Your task to perform on an android device: Search for the new Air Jordan 13 on Nike.com Image 0: 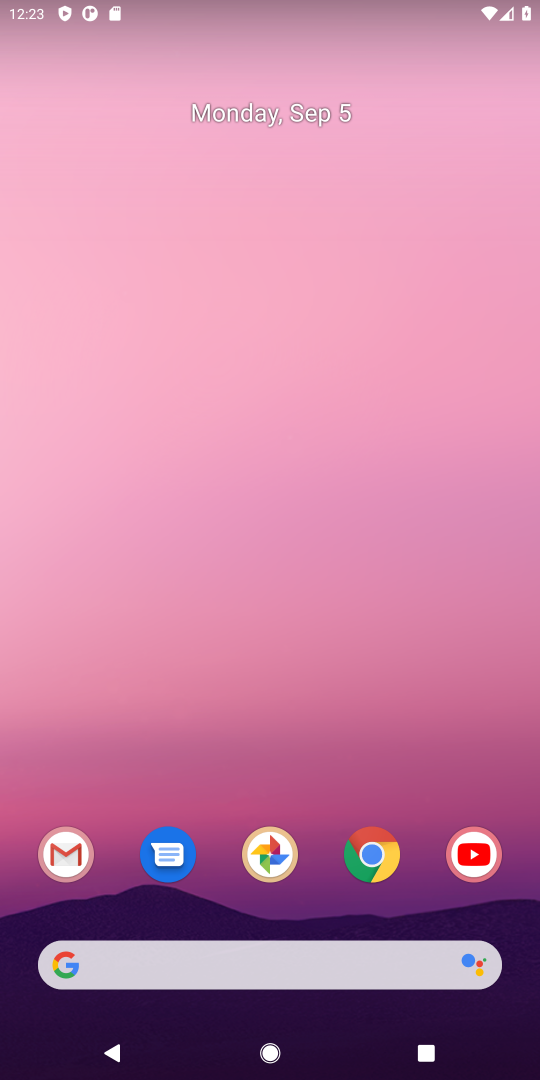
Step 0: click (364, 855)
Your task to perform on an android device: Search for the new Air Jordan 13 on Nike.com Image 1: 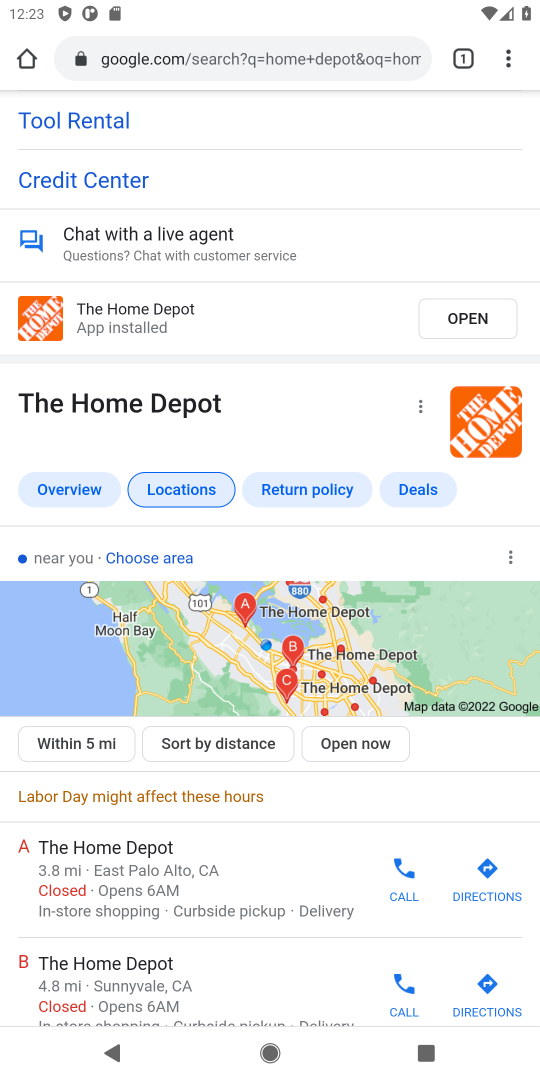
Step 1: click (290, 53)
Your task to perform on an android device: Search for the new Air Jordan 13 on Nike.com Image 2: 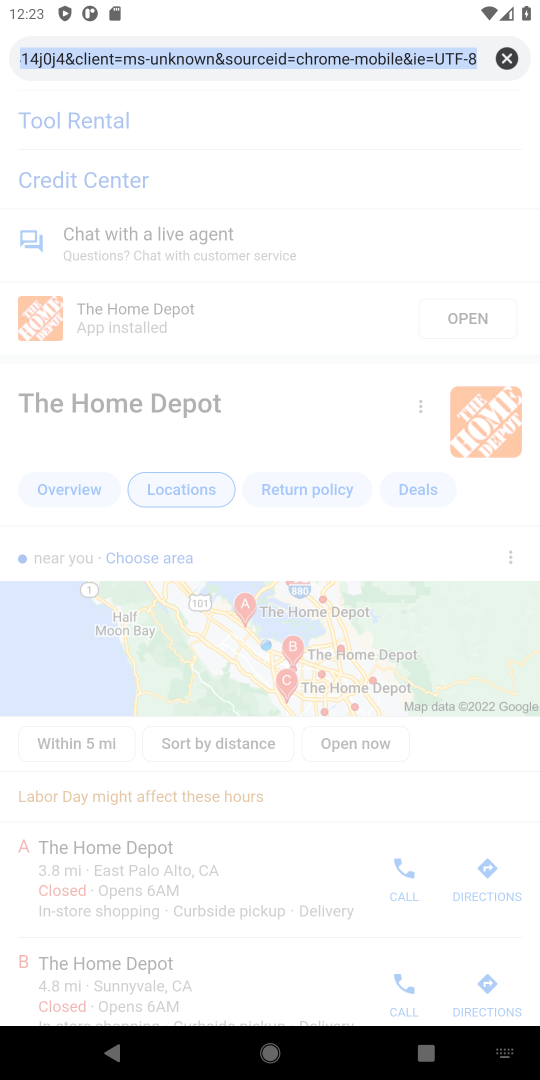
Step 2: click (506, 52)
Your task to perform on an android device: Search for the new Air Jordan 13 on Nike.com Image 3: 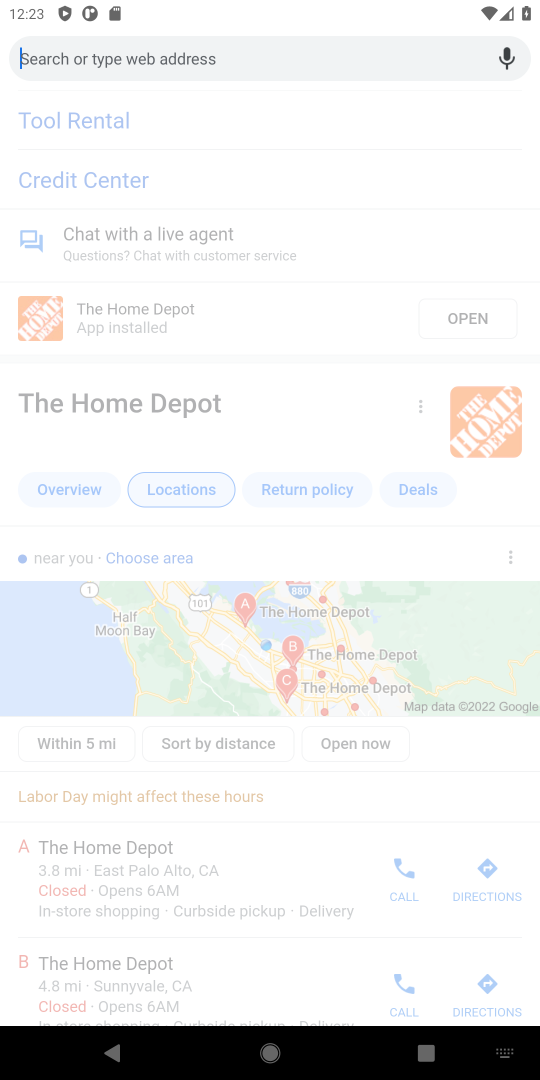
Step 3: click (271, 58)
Your task to perform on an android device: Search for the new Air Jordan 13 on Nike.com Image 4: 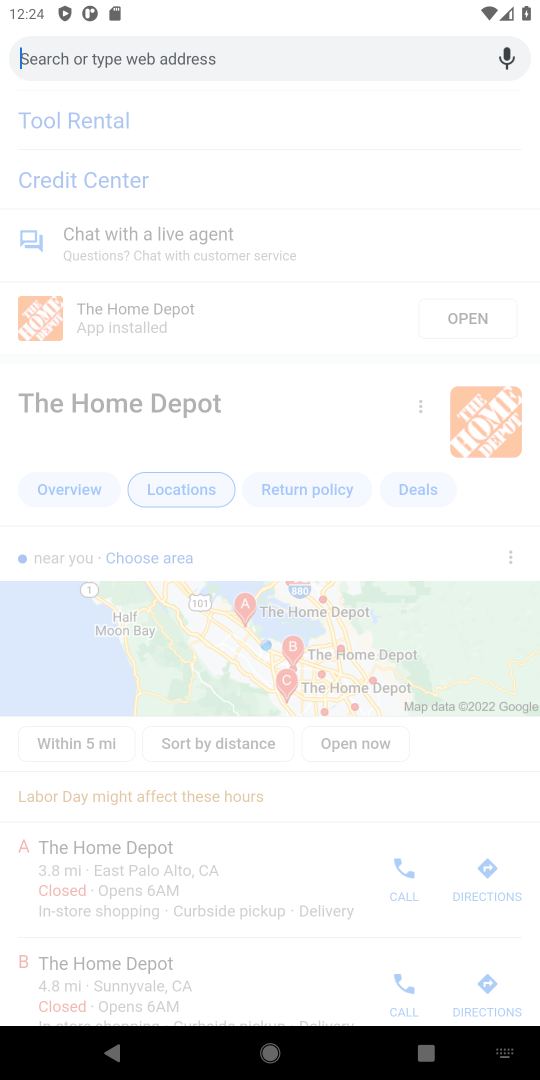
Step 4: type "Nike.com"
Your task to perform on an android device: Search for the new Air Jordan 13 on Nike.com Image 5: 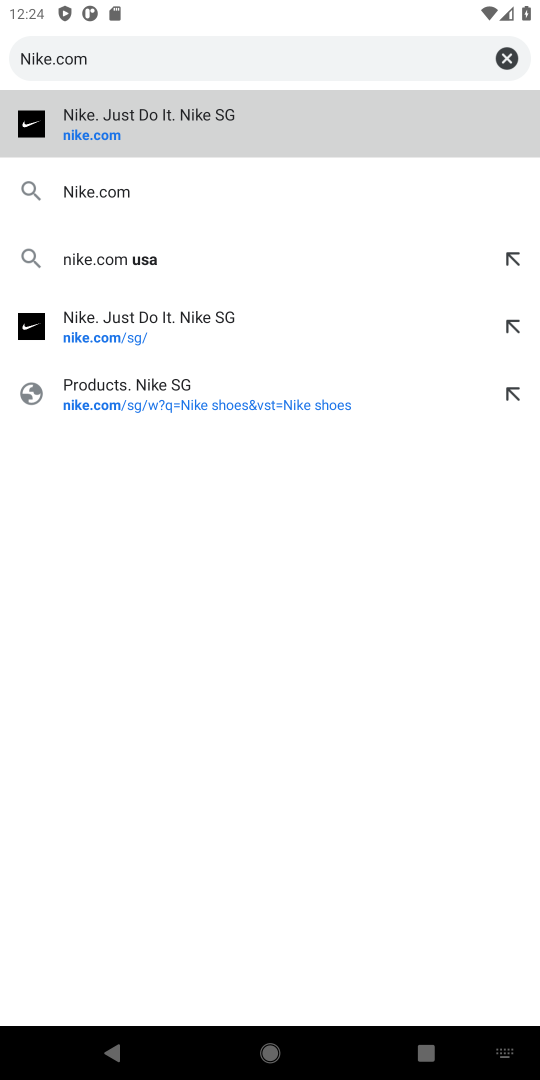
Step 5: press enter
Your task to perform on an android device: Search for the new Air Jordan 13 on Nike.com Image 6: 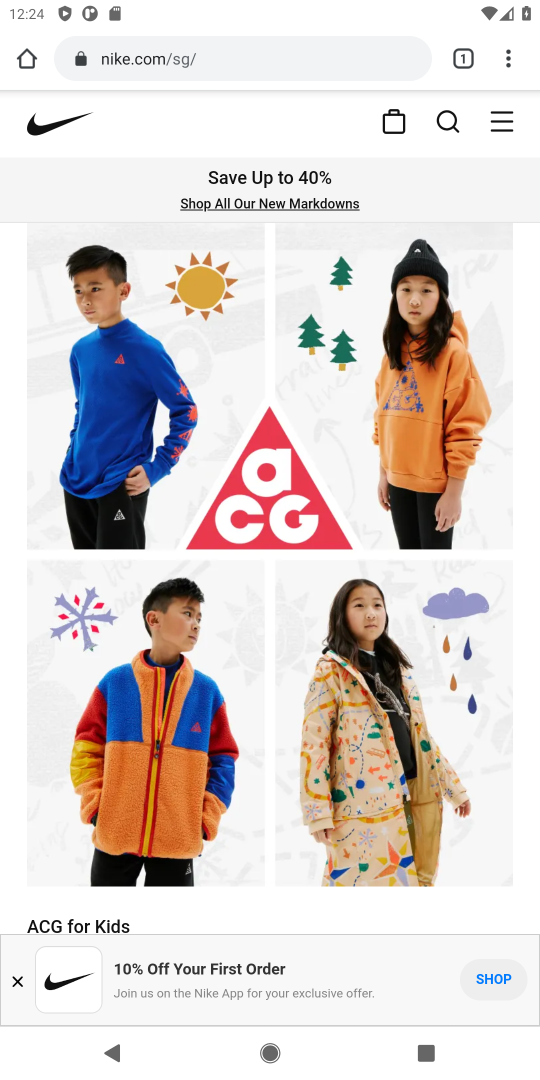
Step 6: click (434, 112)
Your task to perform on an android device: Search for the new Air Jordan 13 on Nike.com Image 7: 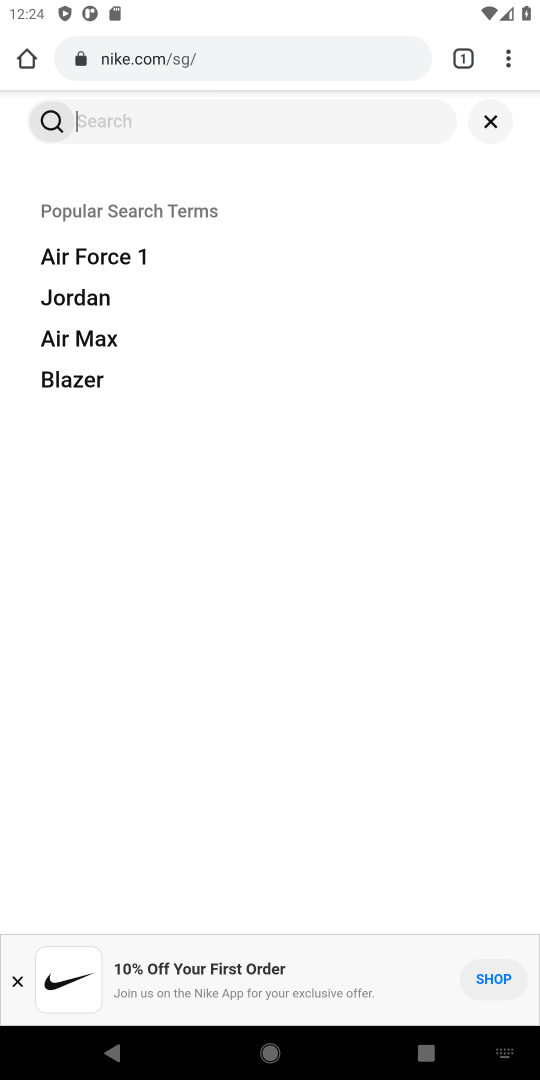
Step 7: click (224, 121)
Your task to perform on an android device: Search for the new Air Jordan 13 on Nike.com Image 8: 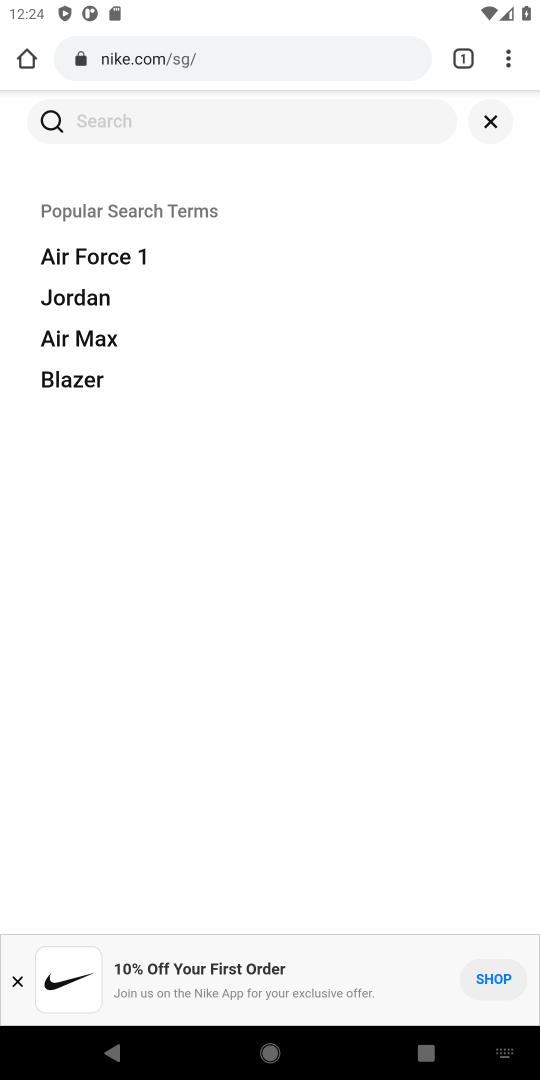
Step 8: type " Air Jordan 13"
Your task to perform on an android device: Search for the new Air Jordan 13 on Nike.com Image 9: 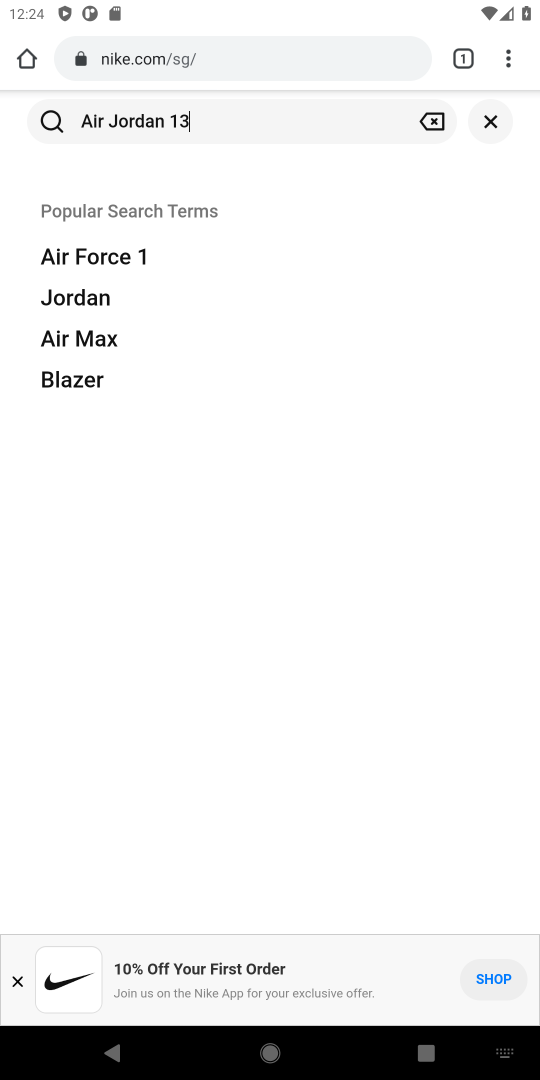
Step 9: press enter
Your task to perform on an android device: Search for the new Air Jordan 13 on Nike.com Image 10: 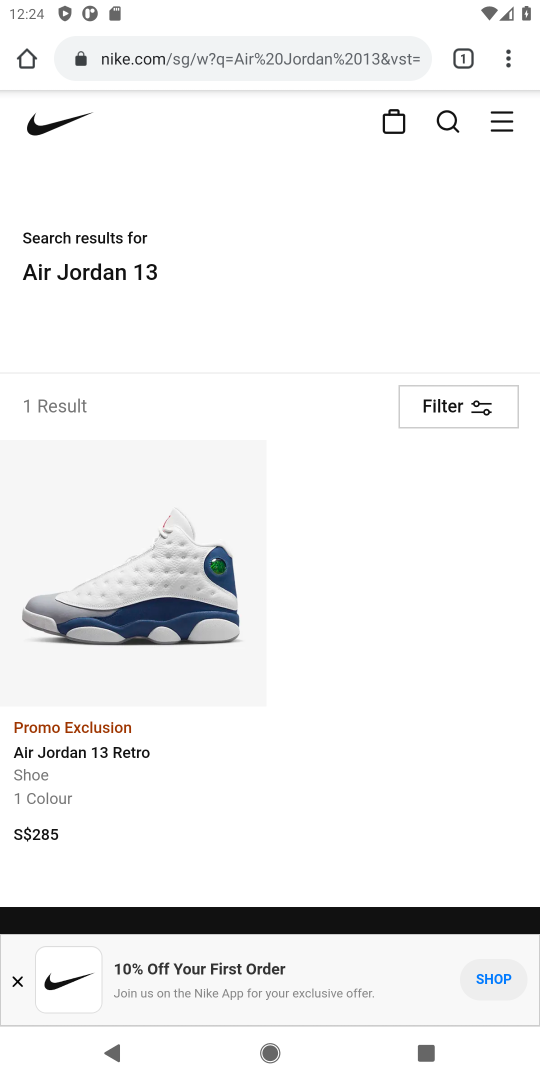
Step 10: task complete